Your task to perform on an android device: turn off priority inbox in the gmail app Image 0: 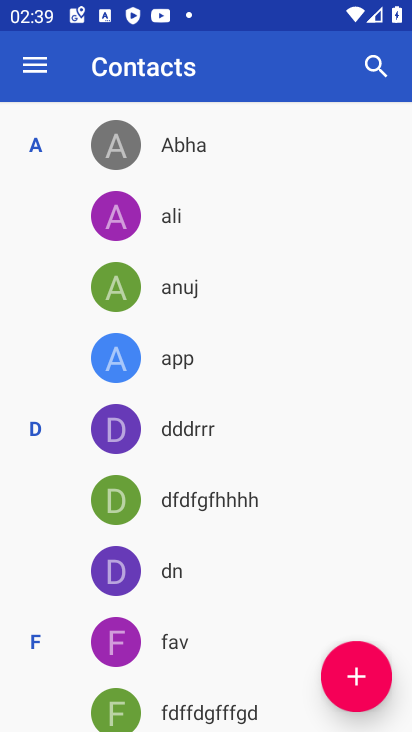
Step 0: press home button
Your task to perform on an android device: turn off priority inbox in the gmail app Image 1: 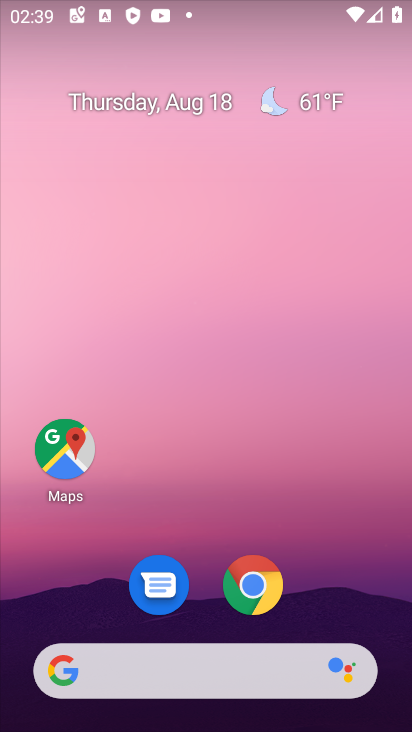
Step 1: drag from (304, 565) to (340, 15)
Your task to perform on an android device: turn off priority inbox in the gmail app Image 2: 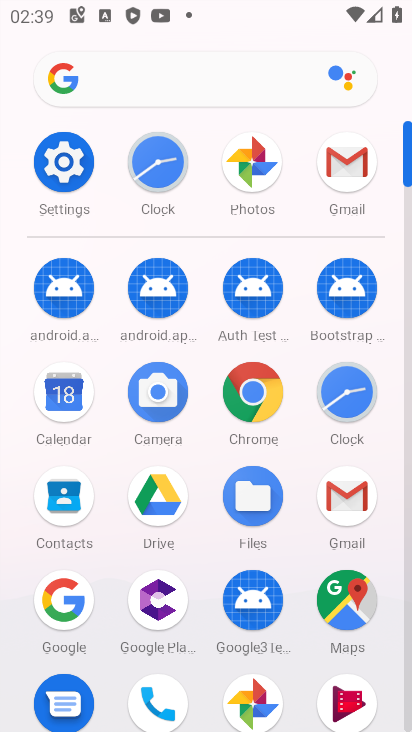
Step 2: click (343, 154)
Your task to perform on an android device: turn off priority inbox in the gmail app Image 3: 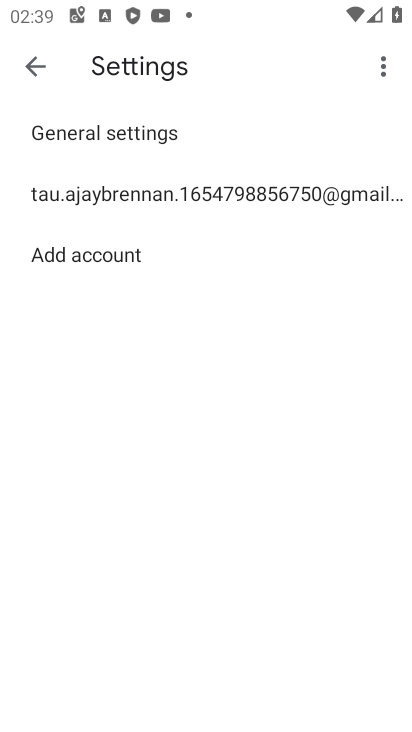
Step 3: click (309, 195)
Your task to perform on an android device: turn off priority inbox in the gmail app Image 4: 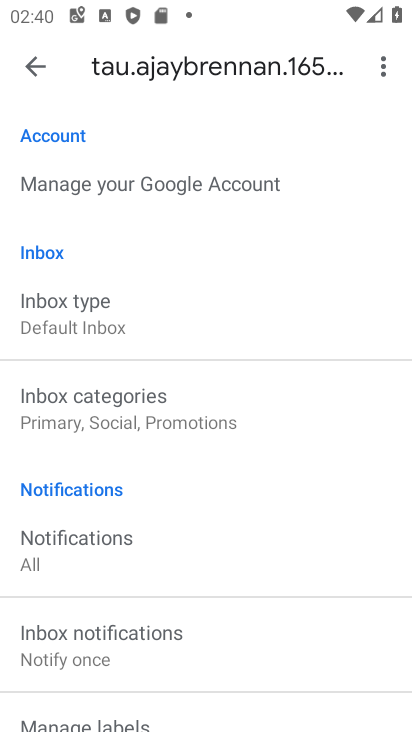
Step 4: click (107, 316)
Your task to perform on an android device: turn off priority inbox in the gmail app Image 5: 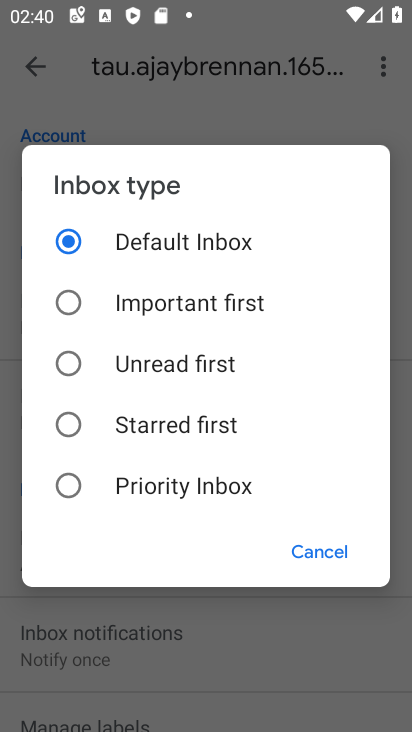
Step 5: click (70, 295)
Your task to perform on an android device: turn off priority inbox in the gmail app Image 6: 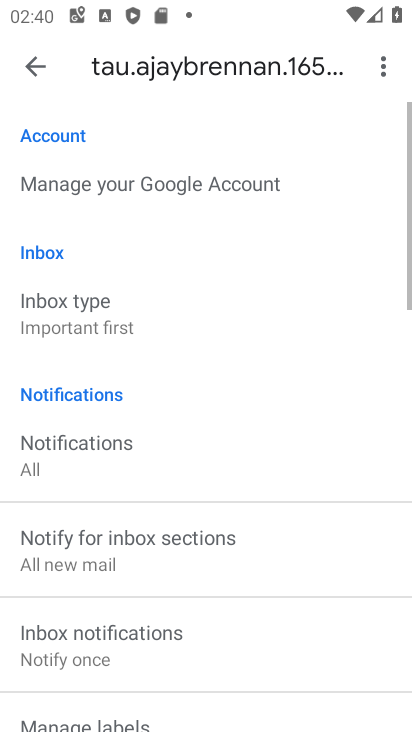
Step 6: task complete